Your task to perform on an android device: Open Google Chrome Image 0: 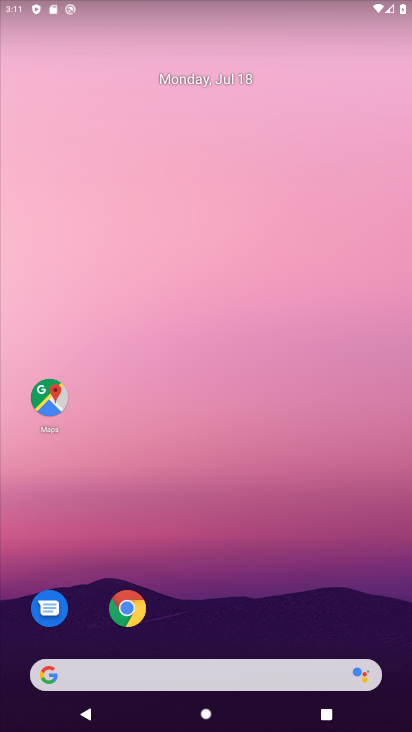
Step 0: drag from (280, 587) to (245, 69)
Your task to perform on an android device: Open Google Chrome Image 1: 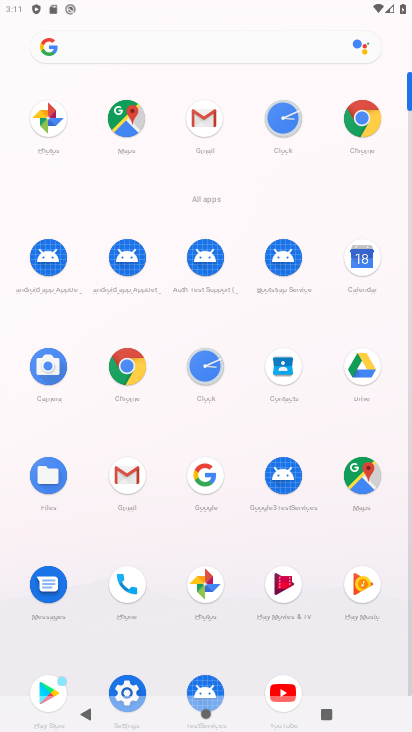
Step 1: click (358, 119)
Your task to perform on an android device: Open Google Chrome Image 2: 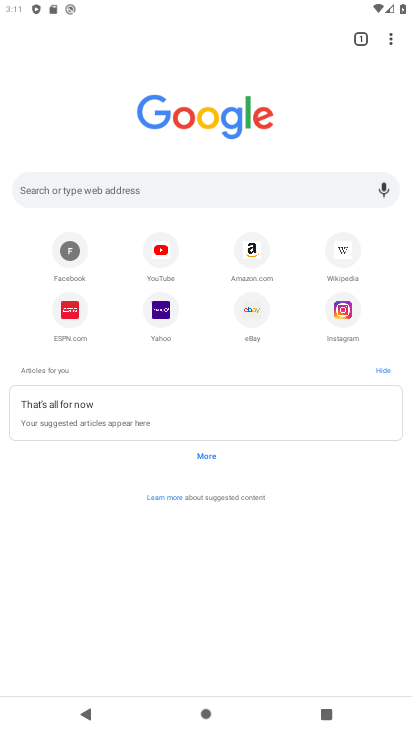
Step 2: task complete